Your task to perform on an android device: open device folders in google photos Image 0: 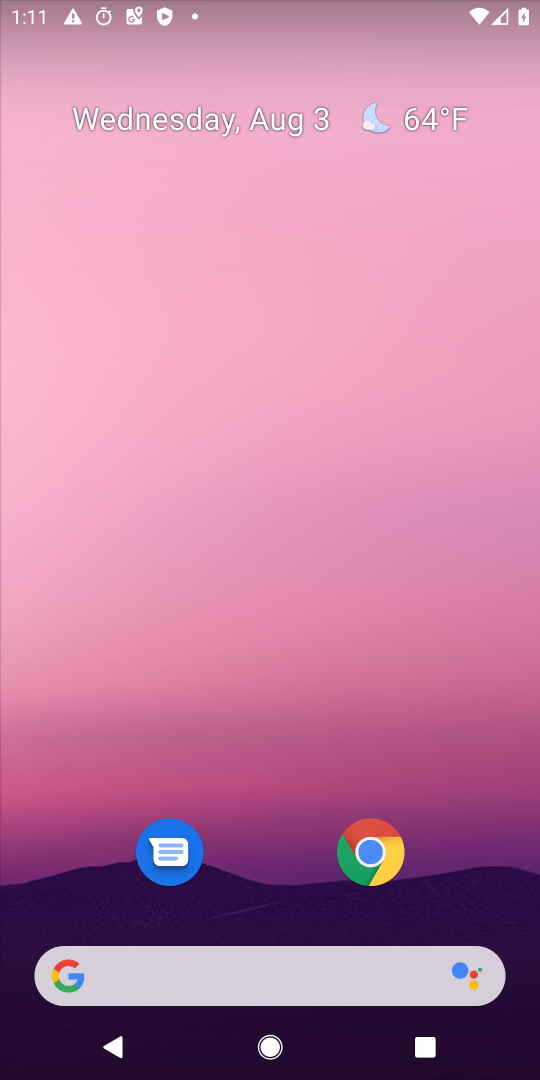
Step 0: drag from (485, 869) to (273, 139)
Your task to perform on an android device: open device folders in google photos Image 1: 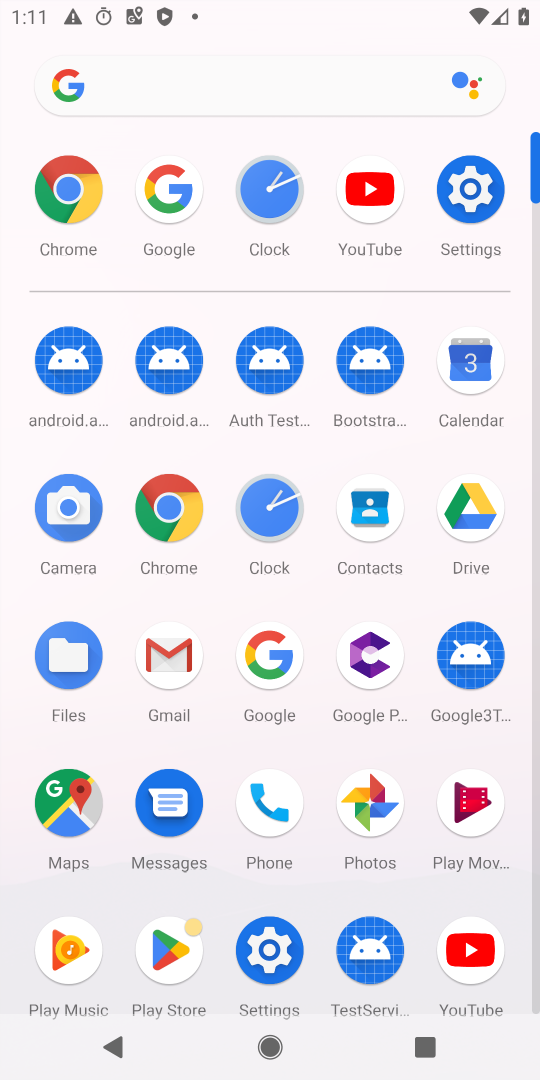
Step 1: click (390, 826)
Your task to perform on an android device: open device folders in google photos Image 2: 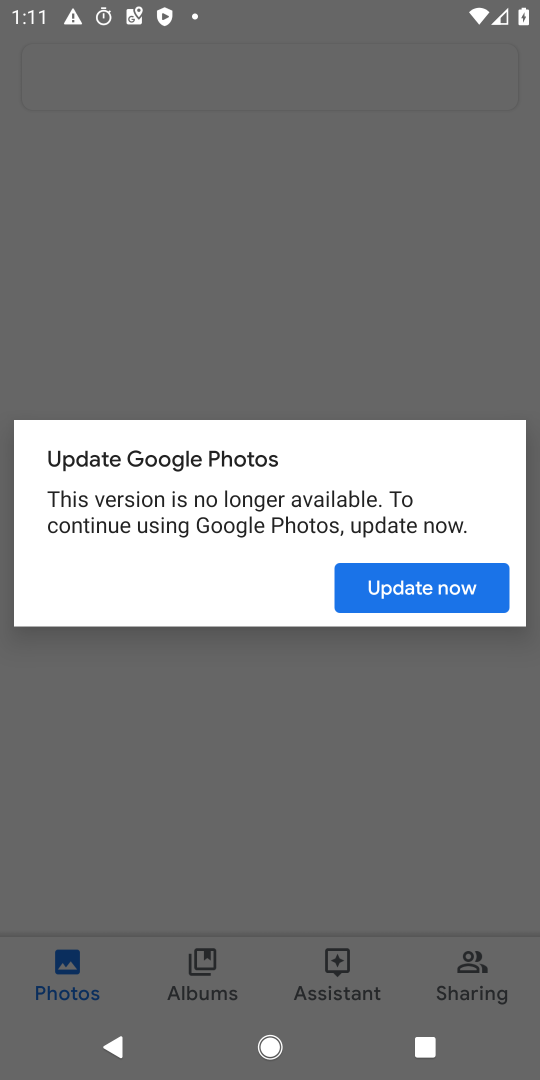
Step 2: task complete